Your task to perform on an android device: Turn off the flashlight Image 0: 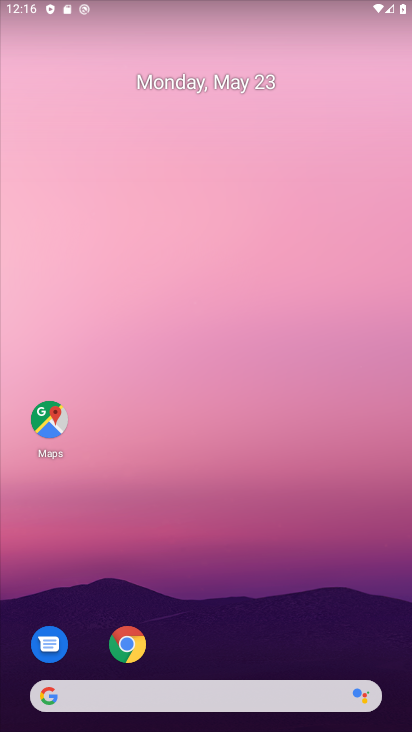
Step 0: drag from (279, 655) to (363, 14)
Your task to perform on an android device: Turn off the flashlight Image 1: 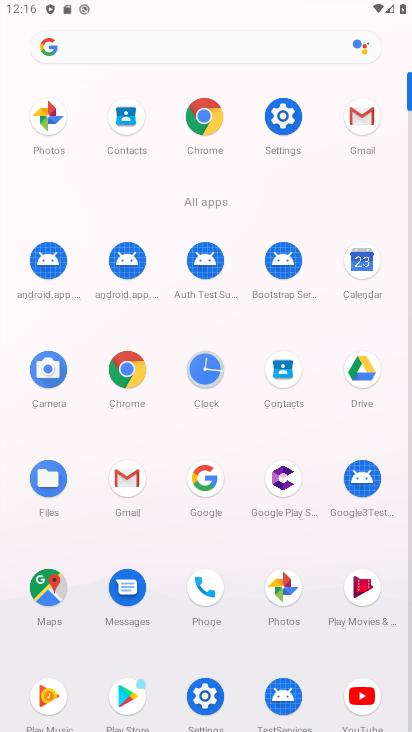
Step 1: click (285, 116)
Your task to perform on an android device: Turn off the flashlight Image 2: 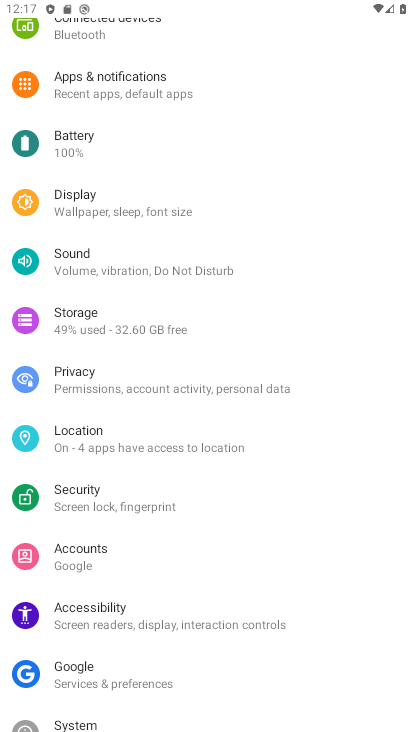
Step 2: drag from (204, 671) to (267, 227)
Your task to perform on an android device: Turn off the flashlight Image 3: 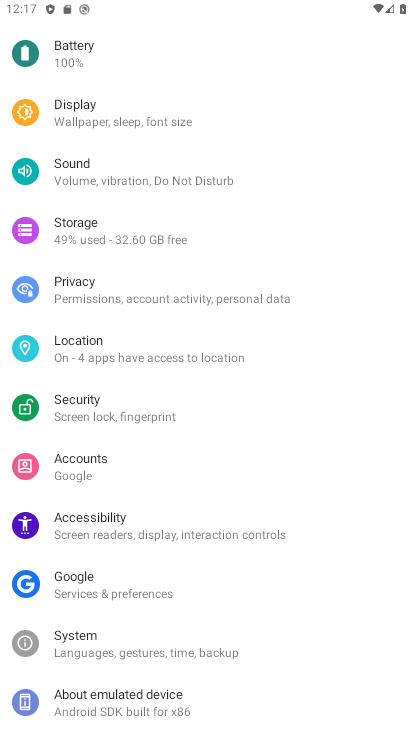
Step 3: drag from (267, 227) to (257, 665)
Your task to perform on an android device: Turn off the flashlight Image 4: 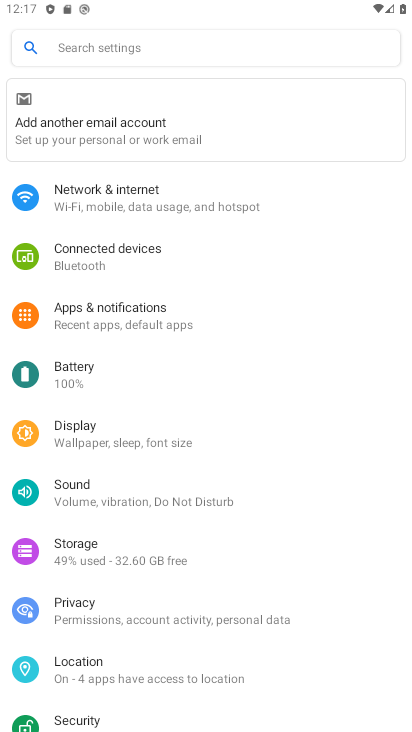
Step 4: click (114, 312)
Your task to perform on an android device: Turn off the flashlight Image 5: 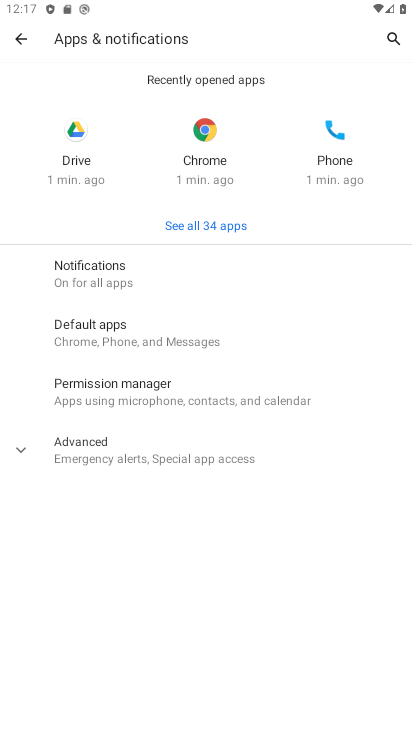
Step 5: click (117, 460)
Your task to perform on an android device: Turn off the flashlight Image 6: 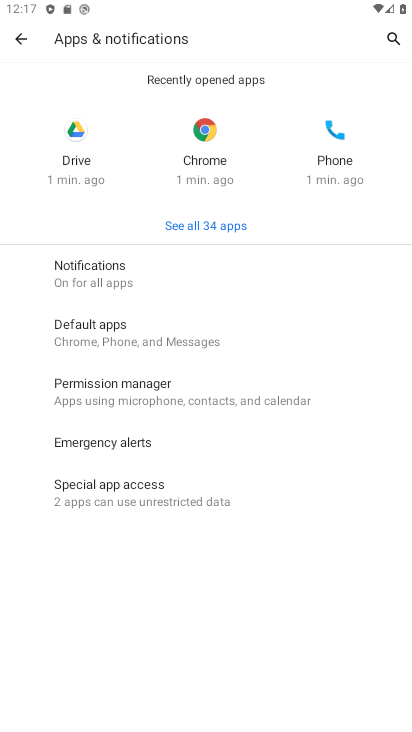
Step 6: click (119, 493)
Your task to perform on an android device: Turn off the flashlight Image 7: 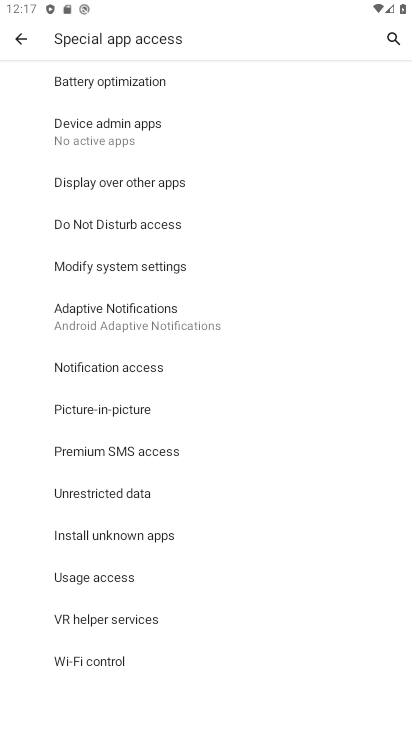
Step 7: task complete